Your task to perform on an android device: Do I have any events this weekend? Image 0: 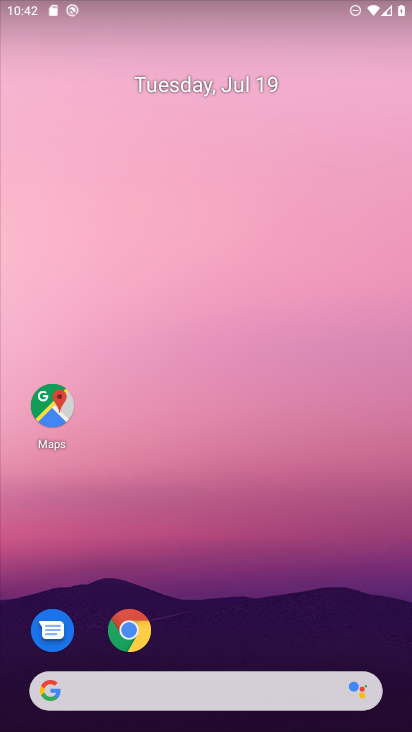
Step 0: drag from (196, 697) to (285, 165)
Your task to perform on an android device: Do I have any events this weekend? Image 1: 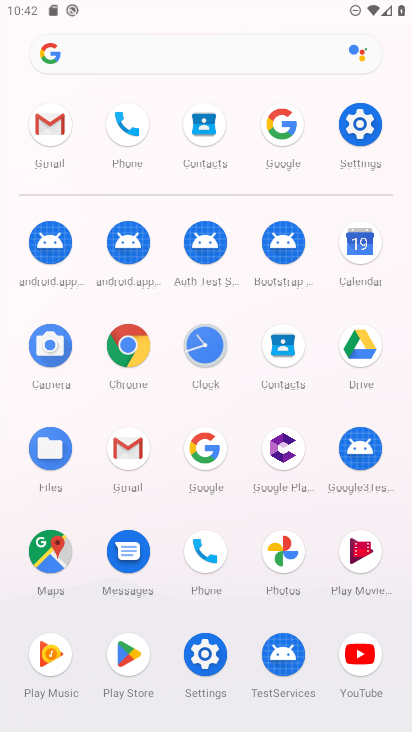
Step 1: click (359, 237)
Your task to perform on an android device: Do I have any events this weekend? Image 2: 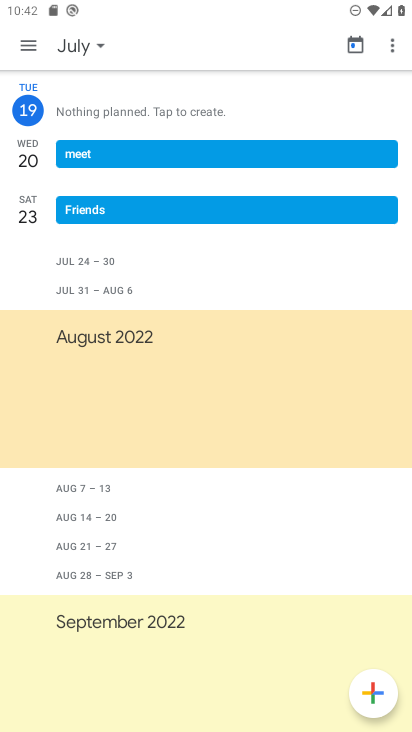
Step 2: click (100, 42)
Your task to perform on an android device: Do I have any events this weekend? Image 3: 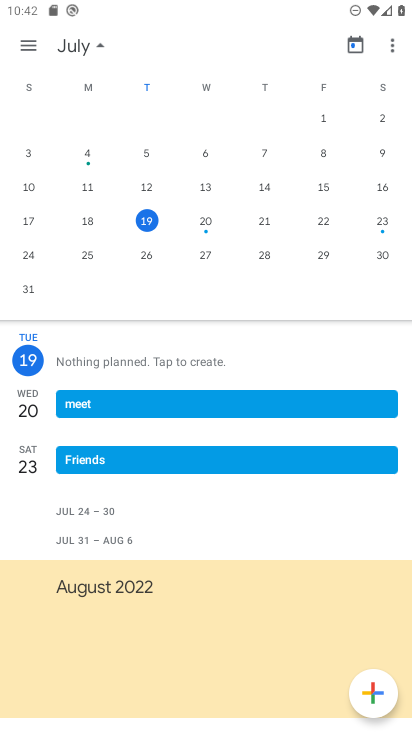
Step 3: click (374, 223)
Your task to perform on an android device: Do I have any events this weekend? Image 4: 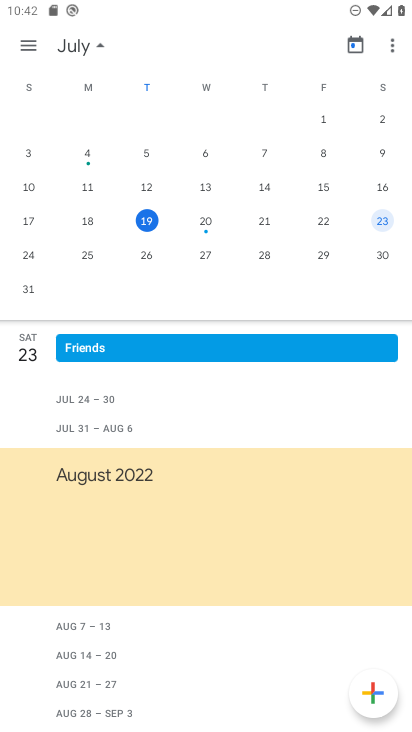
Step 4: click (24, 49)
Your task to perform on an android device: Do I have any events this weekend? Image 5: 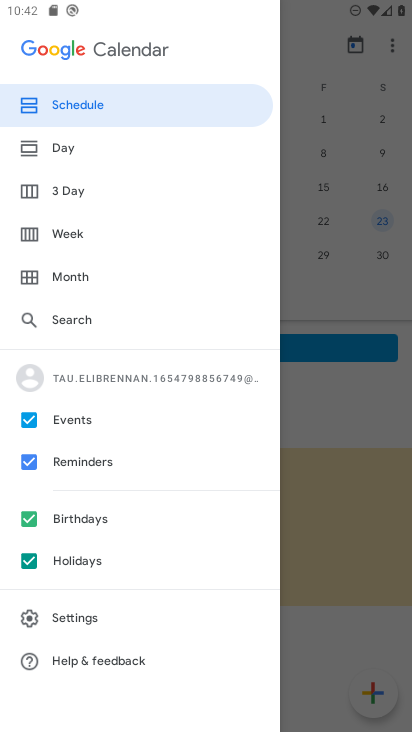
Step 5: click (92, 113)
Your task to perform on an android device: Do I have any events this weekend? Image 6: 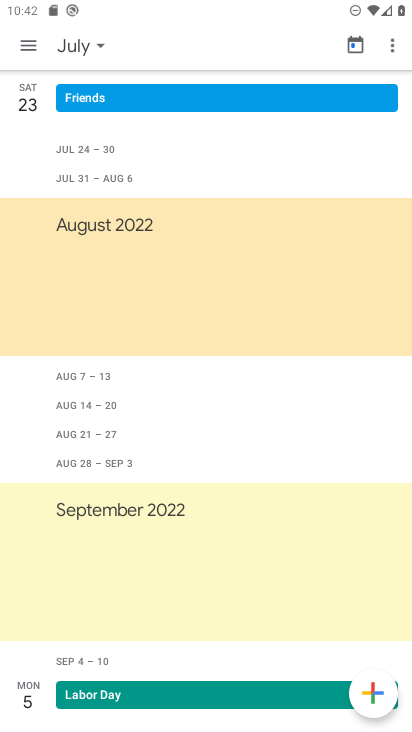
Step 6: task complete